Your task to perform on an android device: Open CNN.com Image 0: 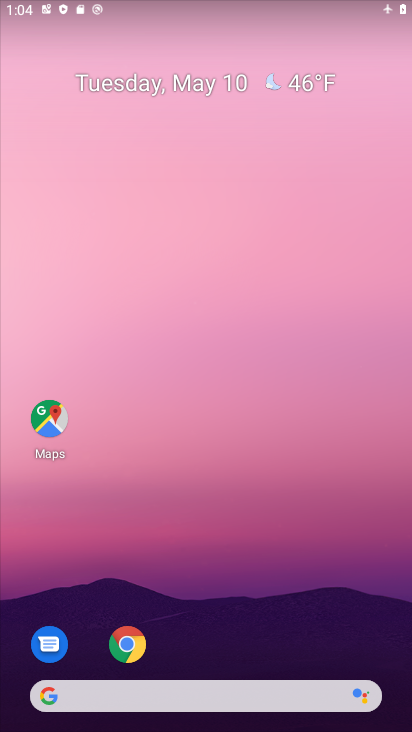
Step 0: drag from (279, 650) to (290, 331)
Your task to perform on an android device: Open CNN.com Image 1: 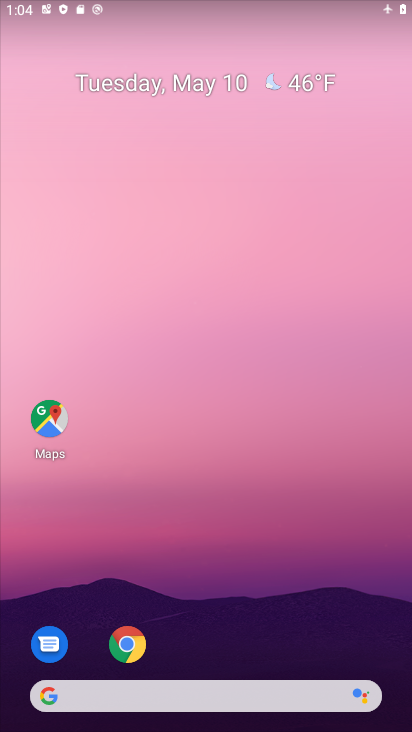
Step 1: drag from (193, 649) to (265, 291)
Your task to perform on an android device: Open CNN.com Image 2: 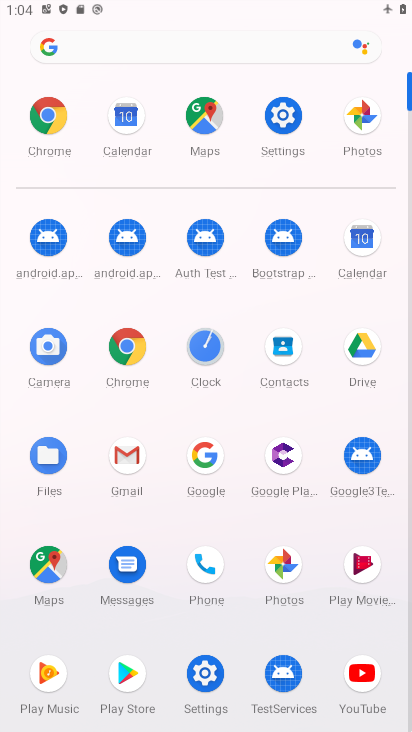
Step 2: click (132, 360)
Your task to perform on an android device: Open CNN.com Image 3: 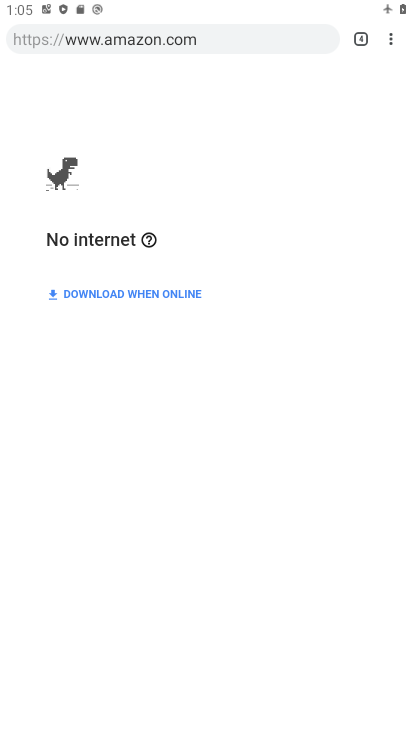
Step 3: task complete